Your task to perform on an android device: set default search engine in the chrome app Image 0: 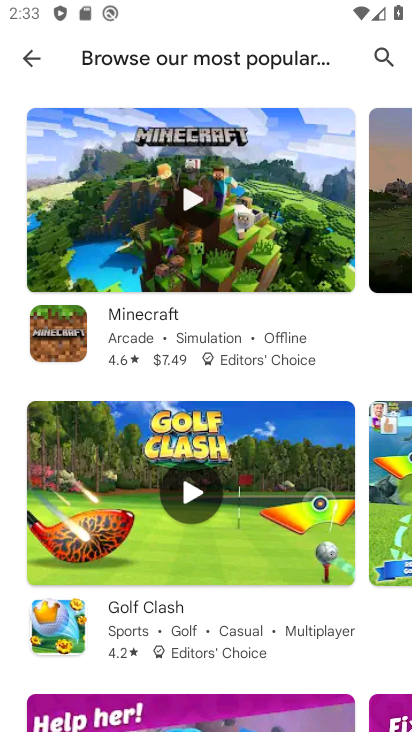
Step 0: press home button
Your task to perform on an android device: set default search engine in the chrome app Image 1: 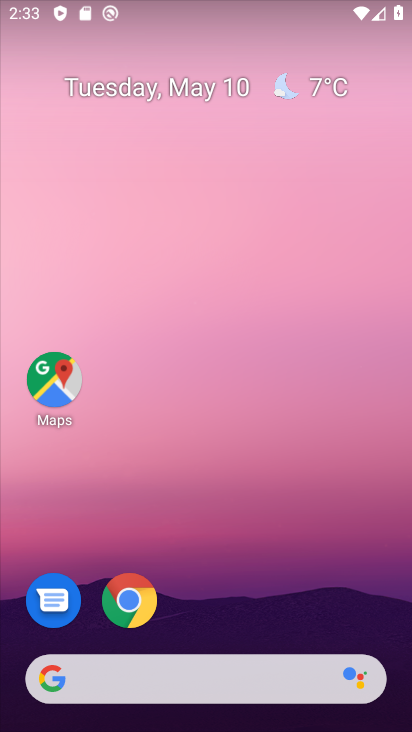
Step 1: click (143, 622)
Your task to perform on an android device: set default search engine in the chrome app Image 2: 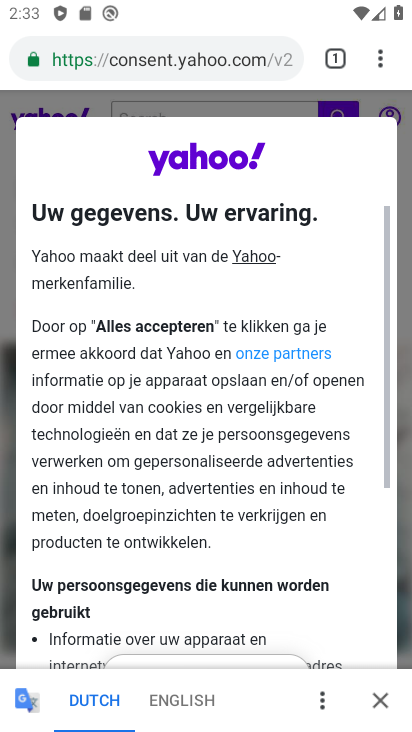
Step 2: click (388, 62)
Your task to perform on an android device: set default search engine in the chrome app Image 3: 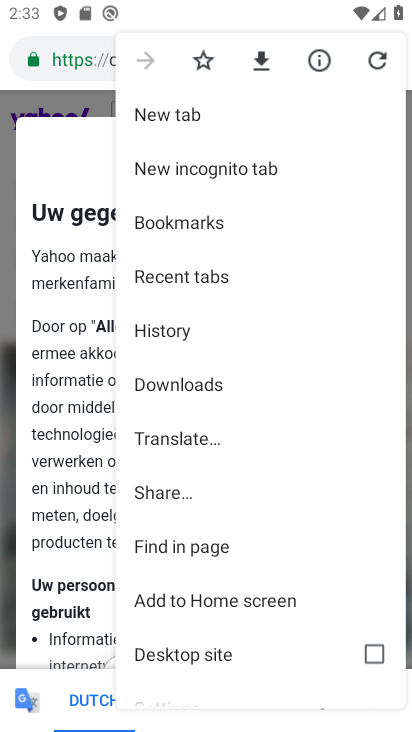
Step 3: drag from (205, 626) to (229, 98)
Your task to perform on an android device: set default search engine in the chrome app Image 4: 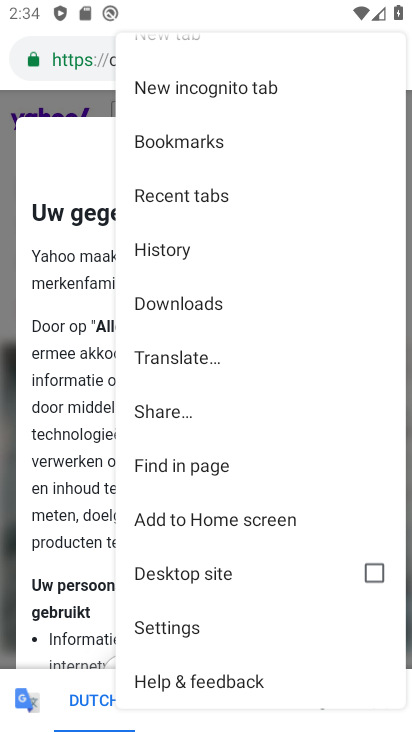
Step 4: click (190, 622)
Your task to perform on an android device: set default search engine in the chrome app Image 5: 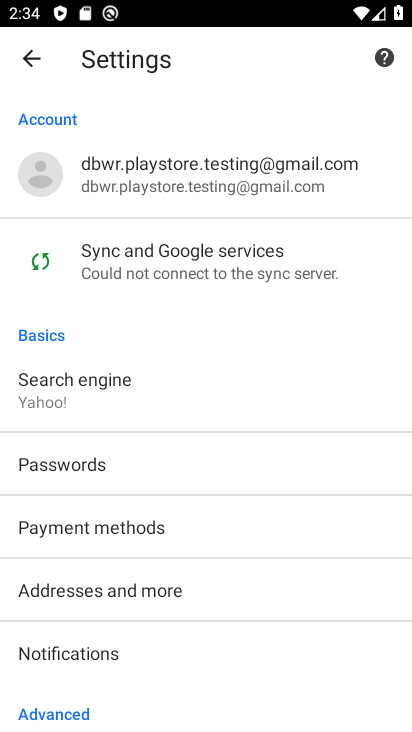
Step 5: click (123, 390)
Your task to perform on an android device: set default search engine in the chrome app Image 6: 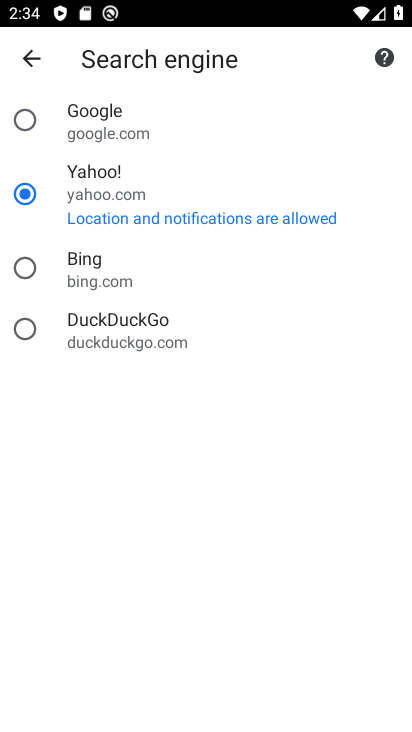
Step 6: click (93, 138)
Your task to perform on an android device: set default search engine in the chrome app Image 7: 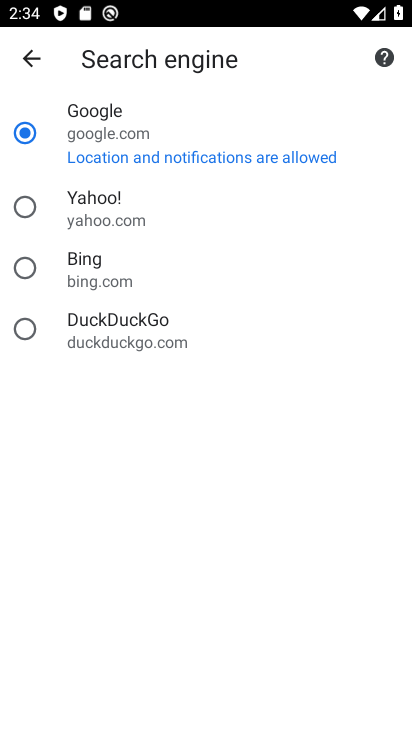
Step 7: task complete